Your task to perform on an android device: turn off priority inbox in the gmail app Image 0: 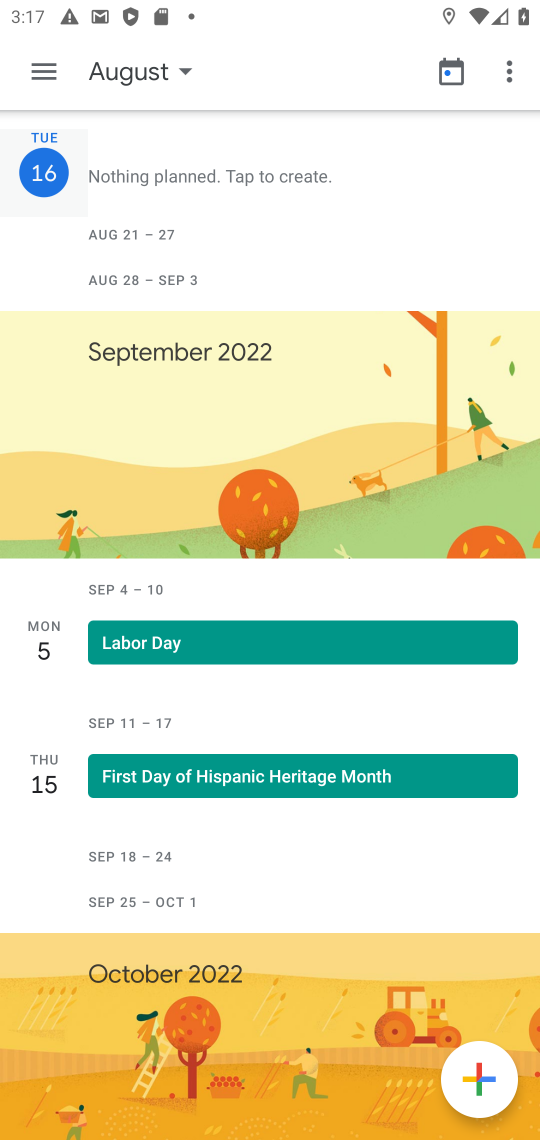
Step 0: press home button
Your task to perform on an android device: turn off priority inbox in the gmail app Image 1: 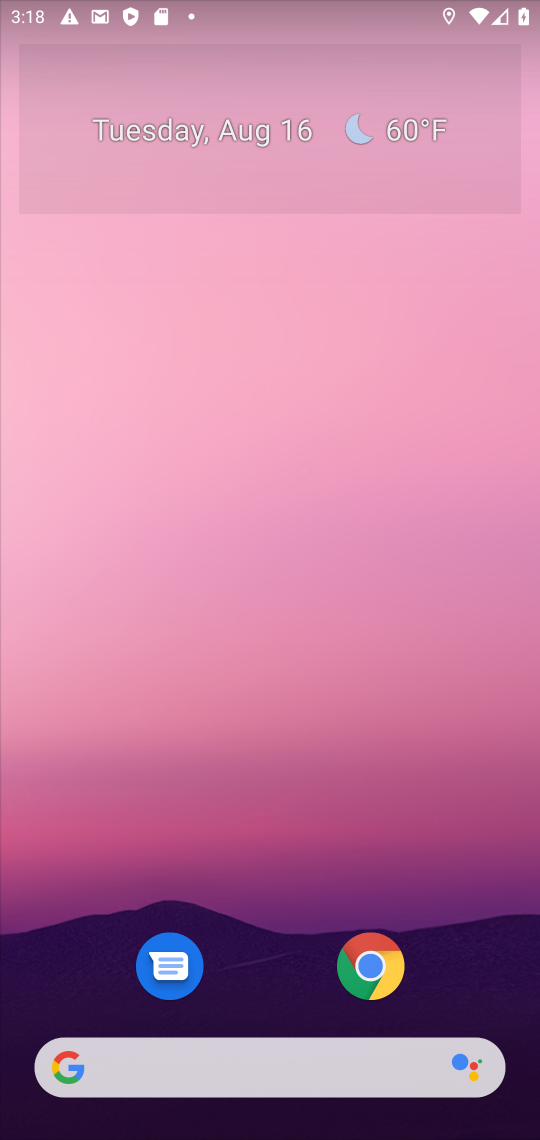
Step 1: drag from (12, 1083) to (415, 84)
Your task to perform on an android device: turn off priority inbox in the gmail app Image 2: 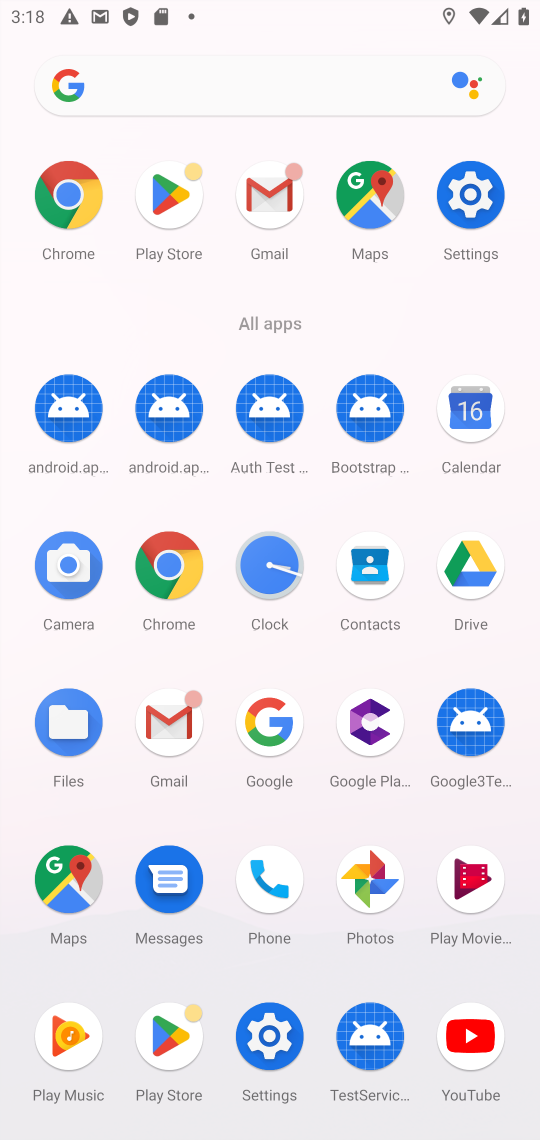
Step 2: click (177, 730)
Your task to perform on an android device: turn off priority inbox in the gmail app Image 3: 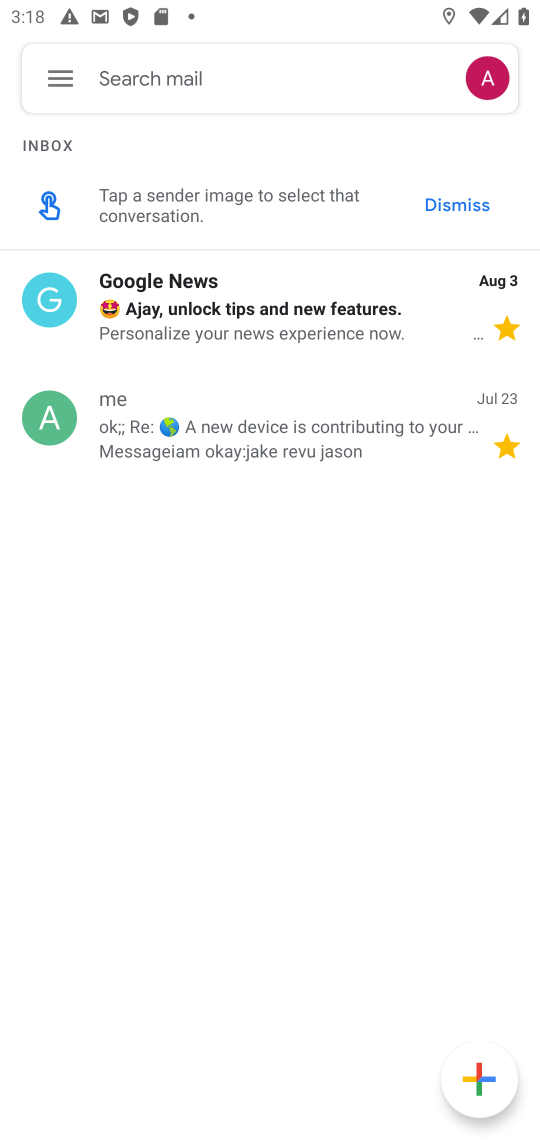
Step 3: click (46, 75)
Your task to perform on an android device: turn off priority inbox in the gmail app Image 4: 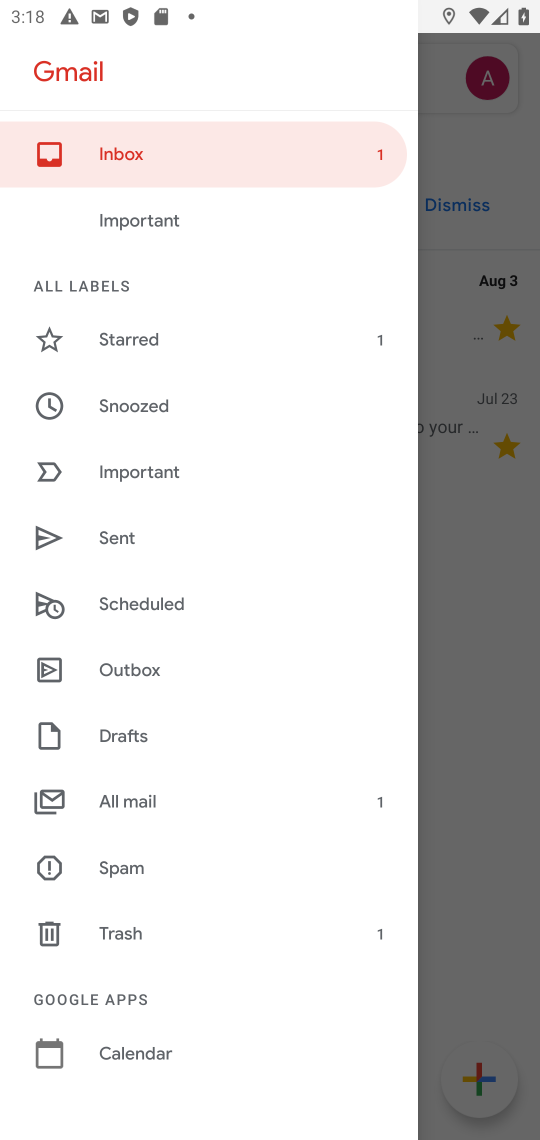
Step 4: drag from (325, 956) to (167, 201)
Your task to perform on an android device: turn off priority inbox in the gmail app Image 5: 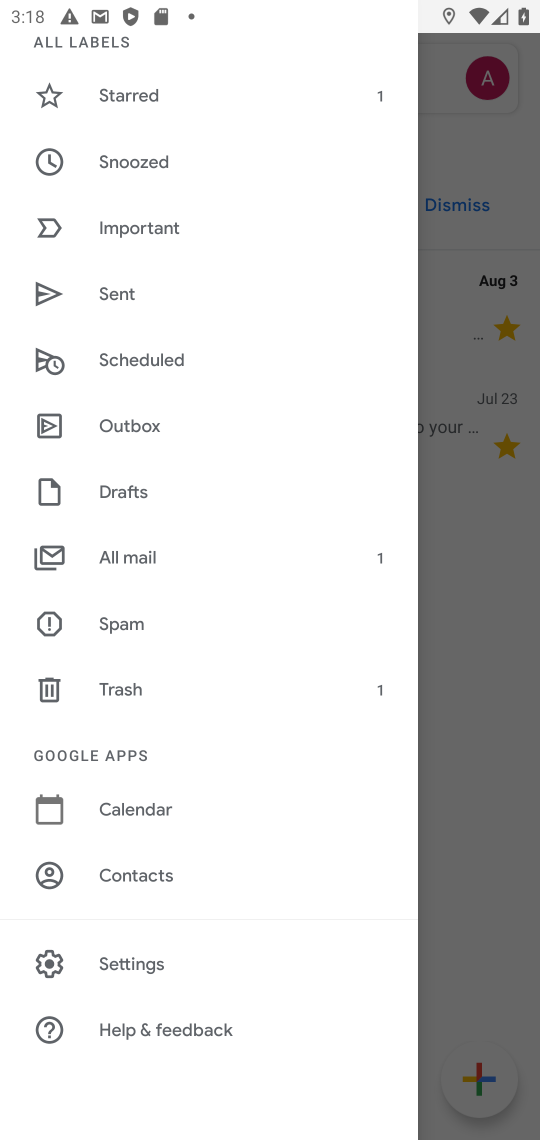
Step 5: click (107, 961)
Your task to perform on an android device: turn off priority inbox in the gmail app Image 6: 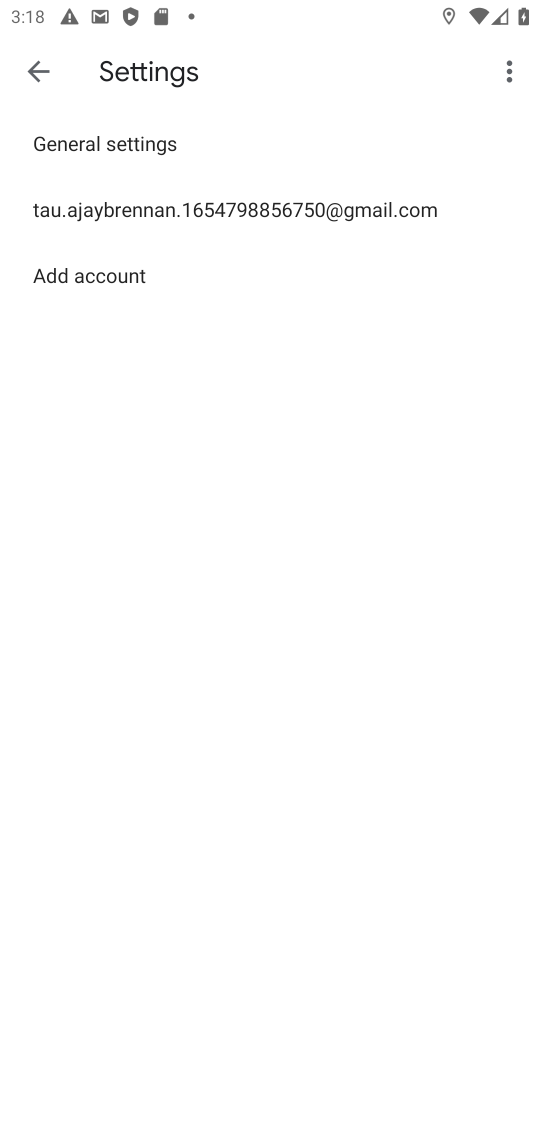
Step 6: click (28, 78)
Your task to perform on an android device: turn off priority inbox in the gmail app Image 7: 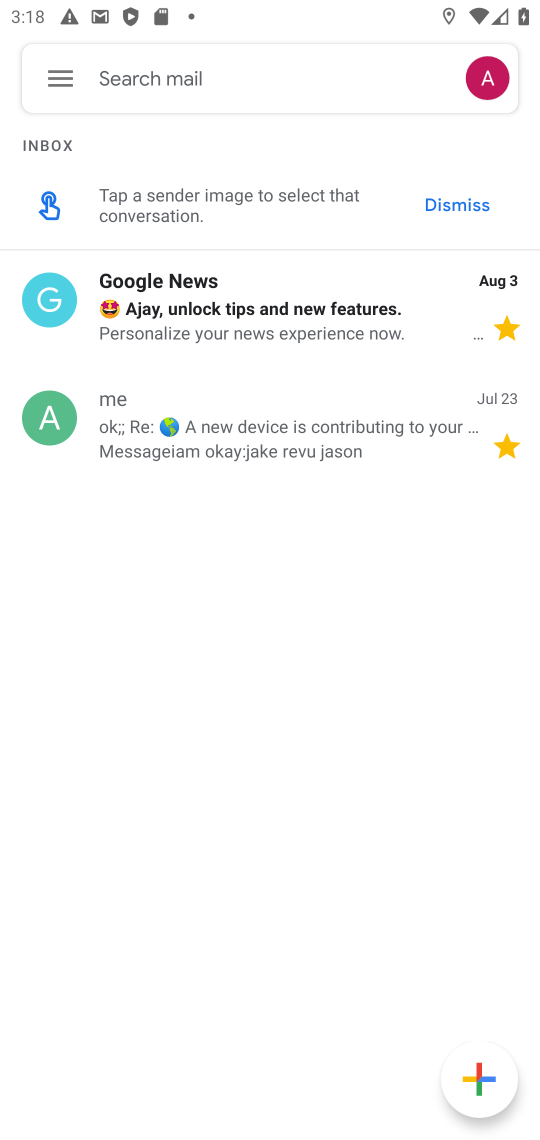
Step 7: click (49, 79)
Your task to perform on an android device: turn off priority inbox in the gmail app Image 8: 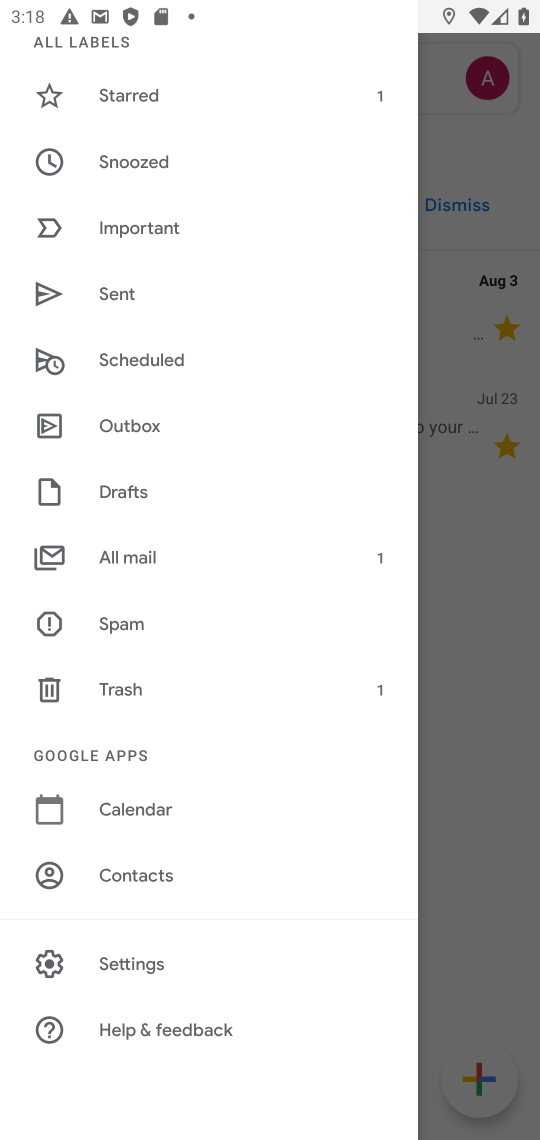
Step 8: click (148, 959)
Your task to perform on an android device: turn off priority inbox in the gmail app Image 9: 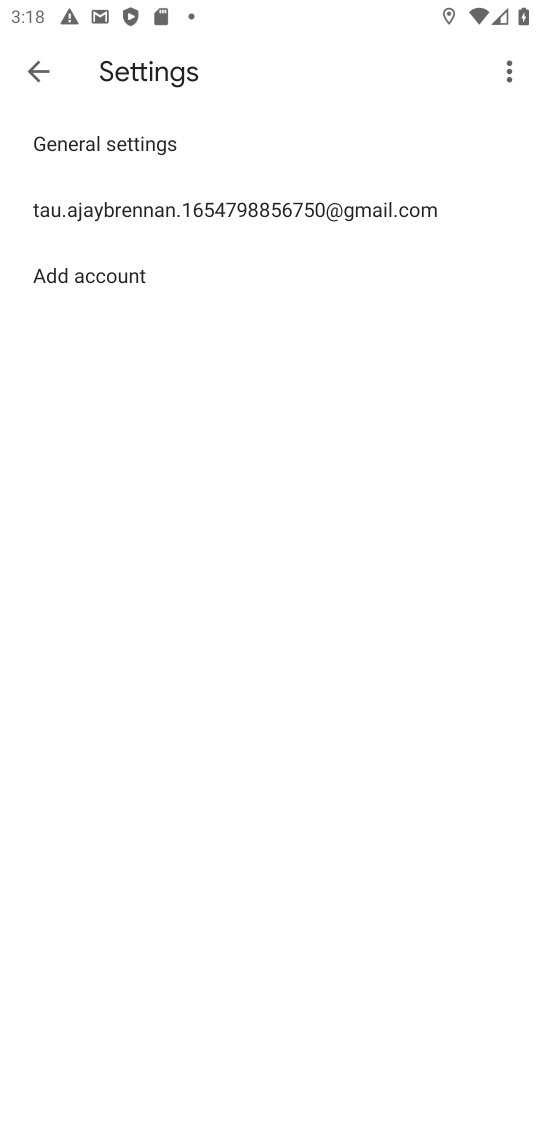
Step 9: click (120, 208)
Your task to perform on an android device: turn off priority inbox in the gmail app Image 10: 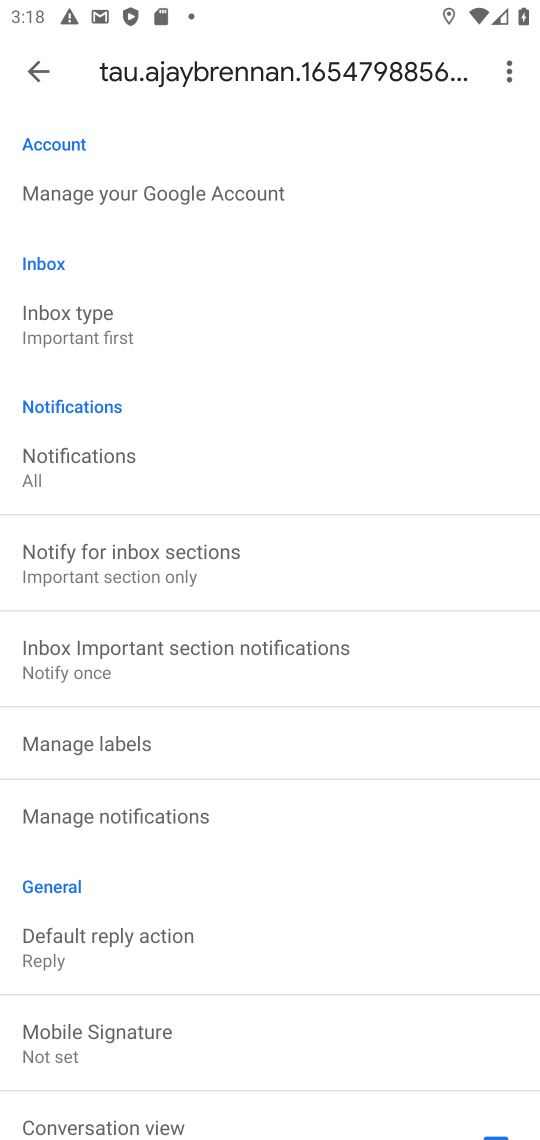
Step 10: click (97, 352)
Your task to perform on an android device: turn off priority inbox in the gmail app Image 11: 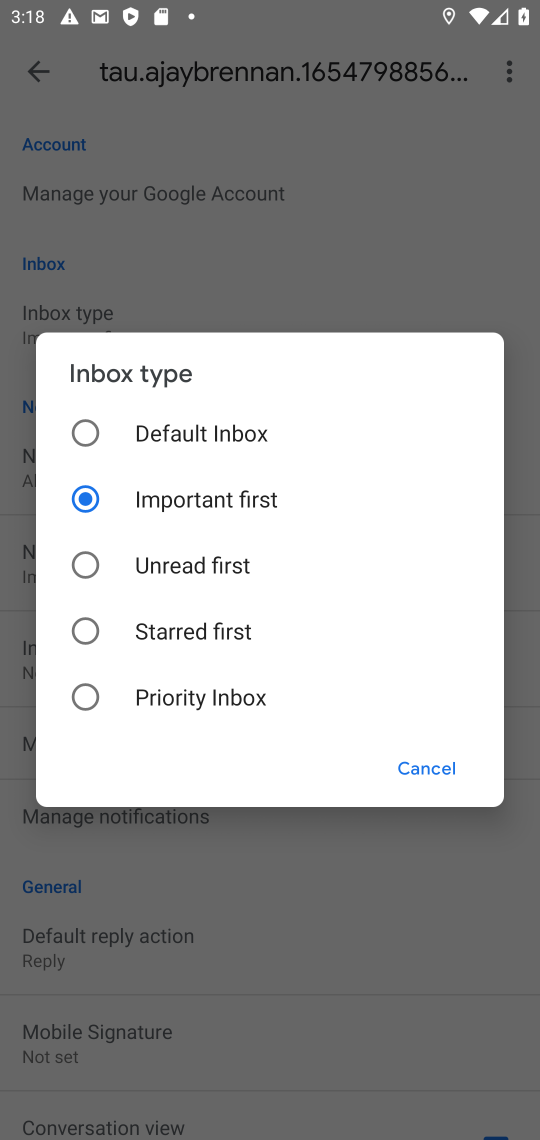
Step 11: click (87, 702)
Your task to perform on an android device: turn off priority inbox in the gmail app Image 12: 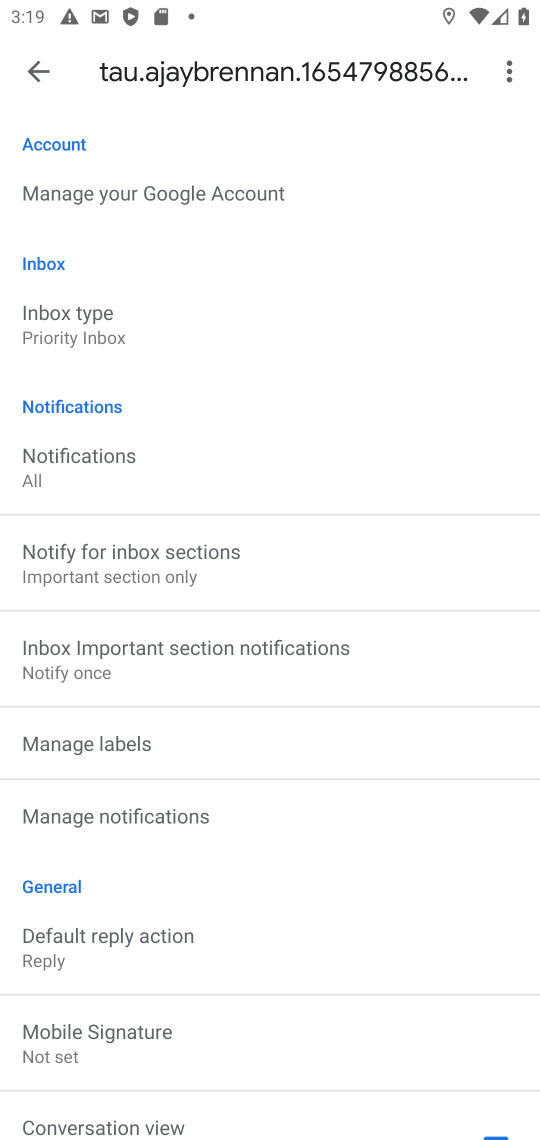
Step 12: task complete